Your task to perform on an android device: read, delete, or share a saved page in the chrome app Image 0: 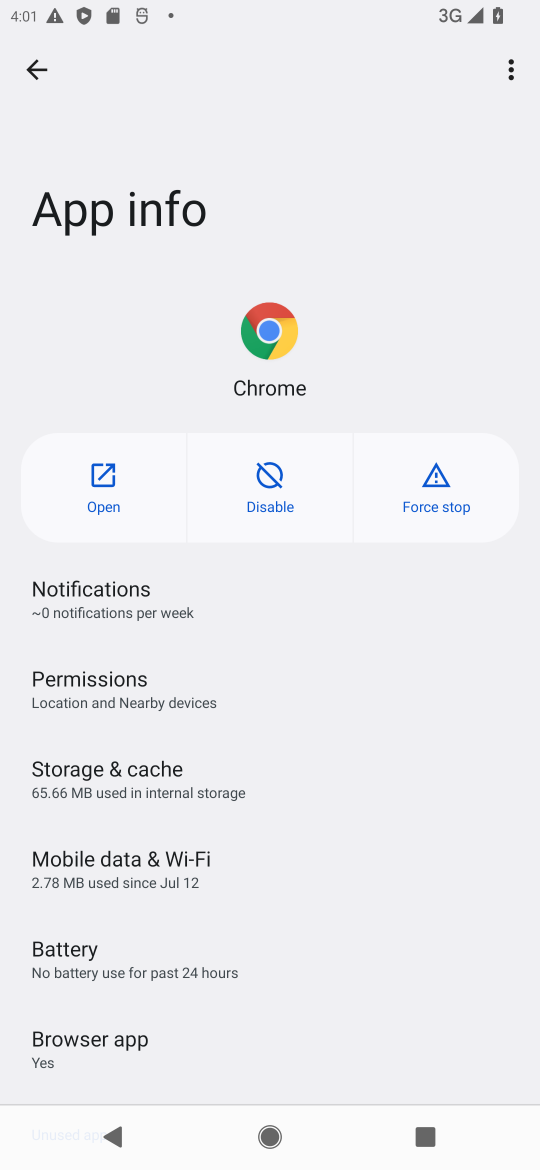
Step 0: press home button
Your task to perform on an android device: read, delete, or share a saved page in the chrome app Image 1: 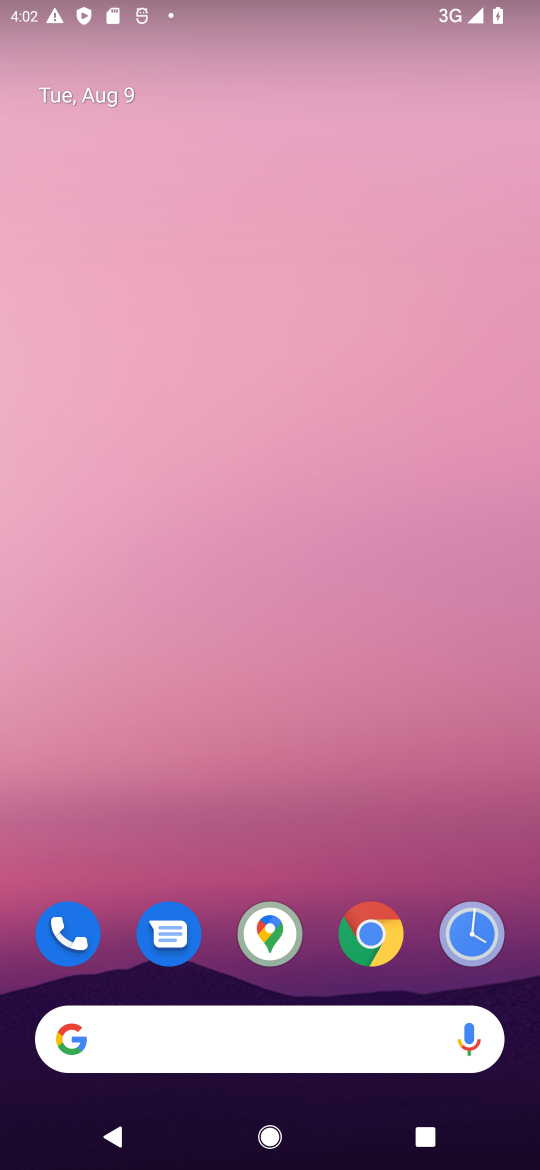
Step 1: click (365, 933)
Your task to perform on an android device: read, delete, or share a saved page in the chrome app Image 2: 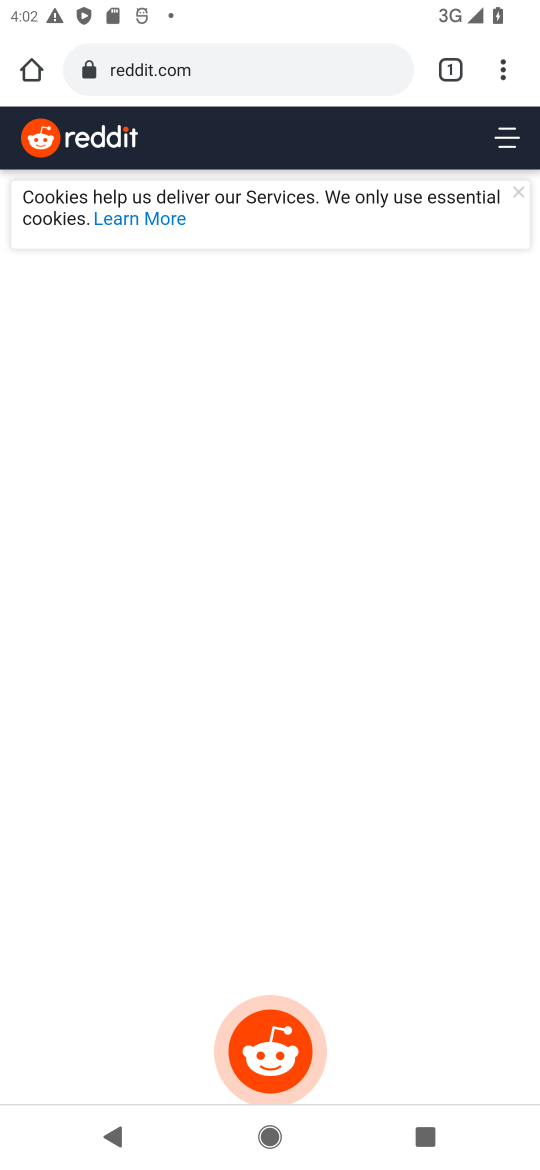
Step 2: click (495, 85)
Your task to perform on an android device: read, delete, or share a saved page in the chrome app Image 3: 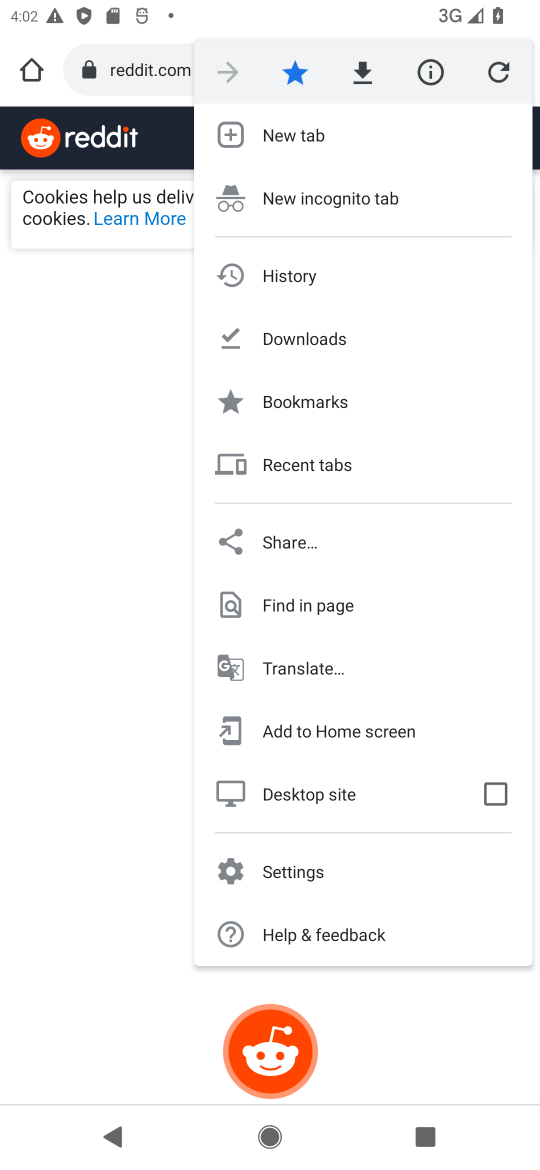
Step 3: click (289, 456)
Your task to perform on an android device: read, delete, or share a saved page in the chrome app Image 4: 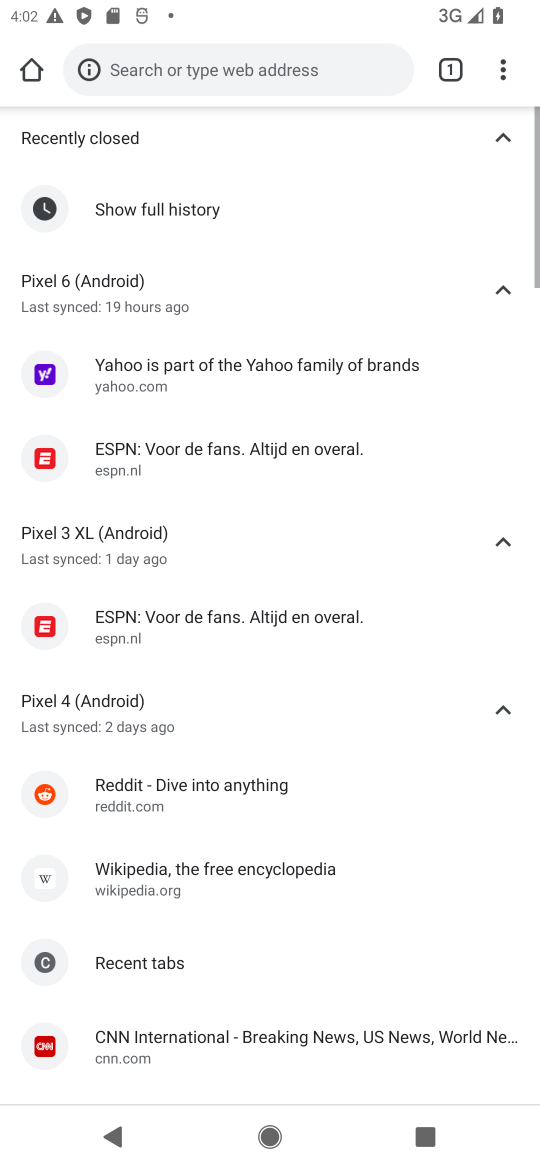
Step 4: task complete